Your task to perform on an android device: Show me the alarms in the clock app Image 0: 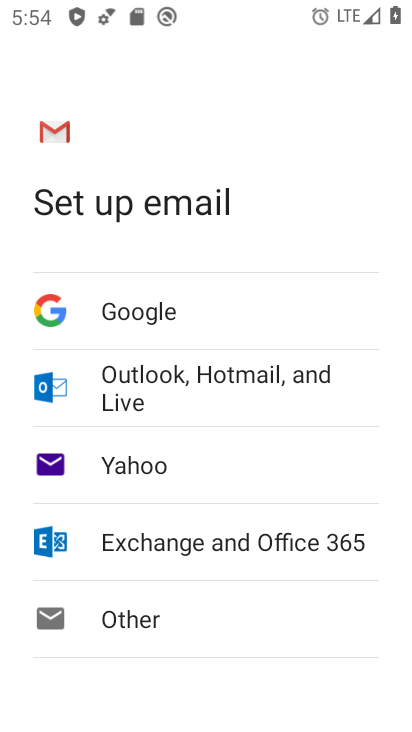
Step 0: press home button
Your task to perform on an android device: Show me the alarms in the clock app Image 1: 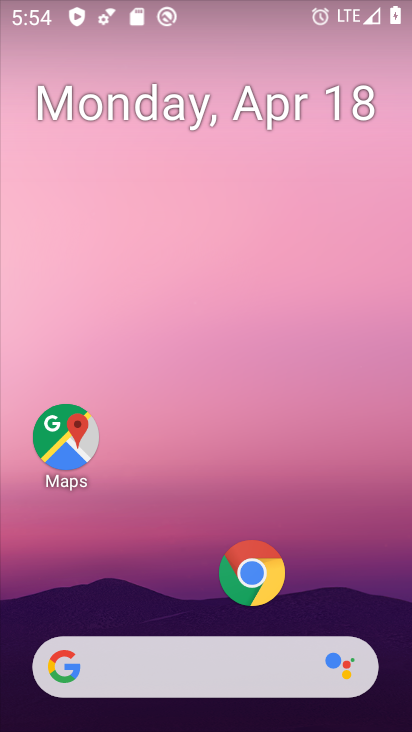
Step 1: drag from (171, 607) to (380, 1)
Your task to perform on an android device: Show me the alarms in the clock app Image 2: 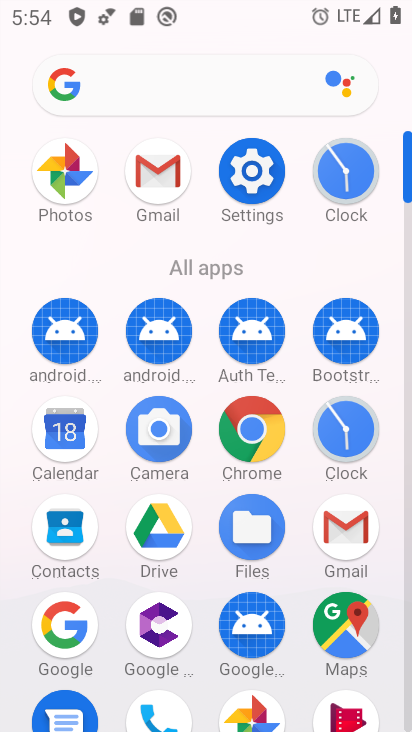
Step 2: click (351, 185)
Your task to perform on an android device: Show me the alarms in the clock app Image 3: 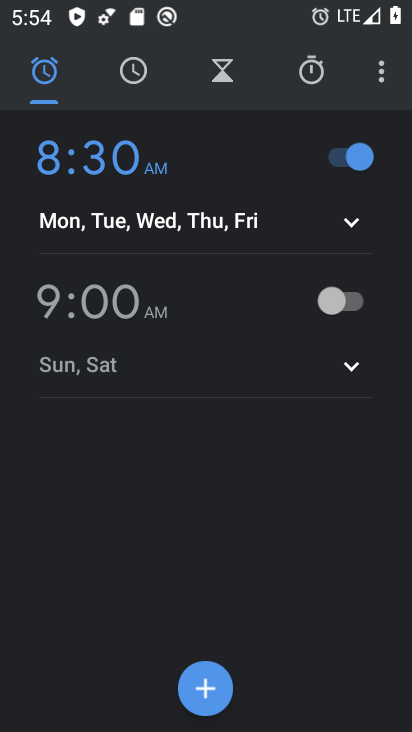
Step 3: click (154, 172)
Your task to perform on an android device: Show me the alarms in the clock app Image 4: 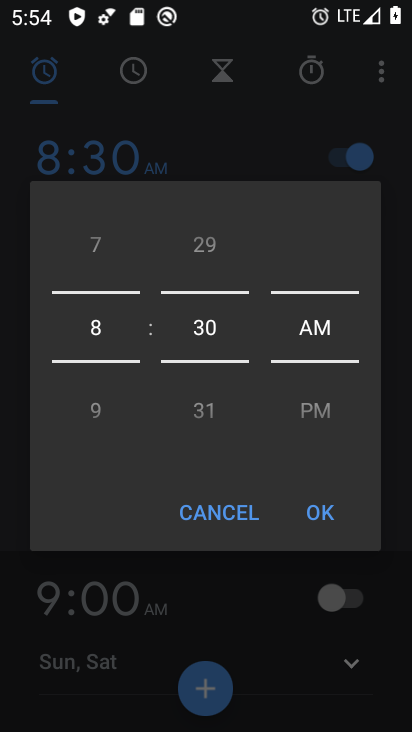
Step 4: click (211, 514)
Your task to perform on an android device: Show me the alarms in the clock app Image 5: 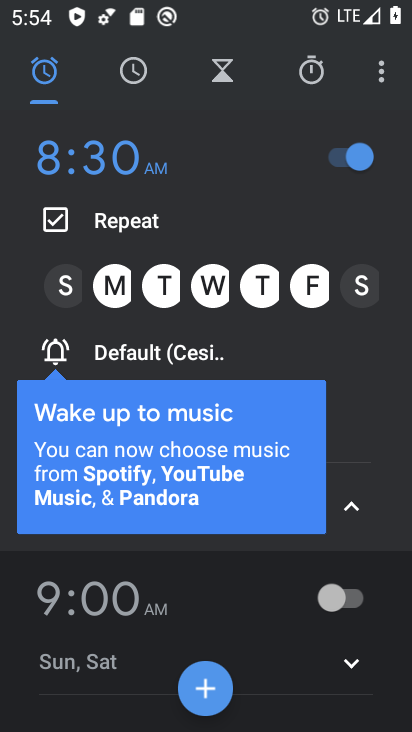
Step 5: task complete